Your task to perform on an android device: Open Chrome and go to the settings page Image 0: 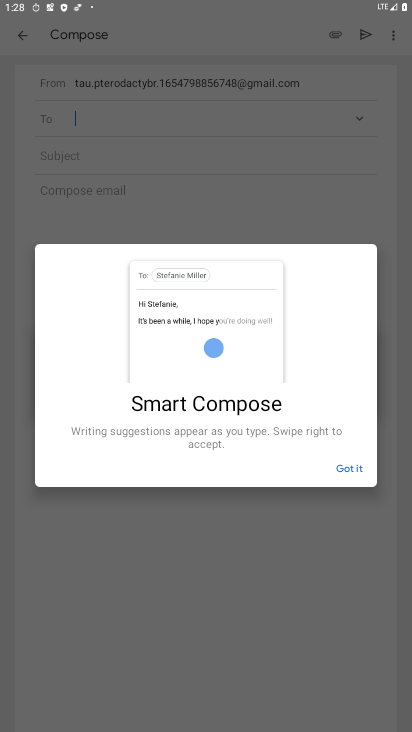
Step 0: press home button
Your task to perform on an android device: Open Chrome and go to the settings page Image 1: 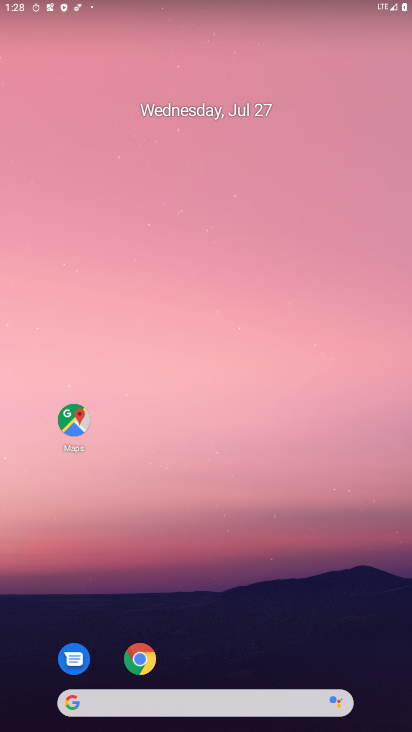
Step 1: drag from (285, 656) to (299, 101)
Your task to perform on an android device: Open Chrome and go to the settings page Image 2: 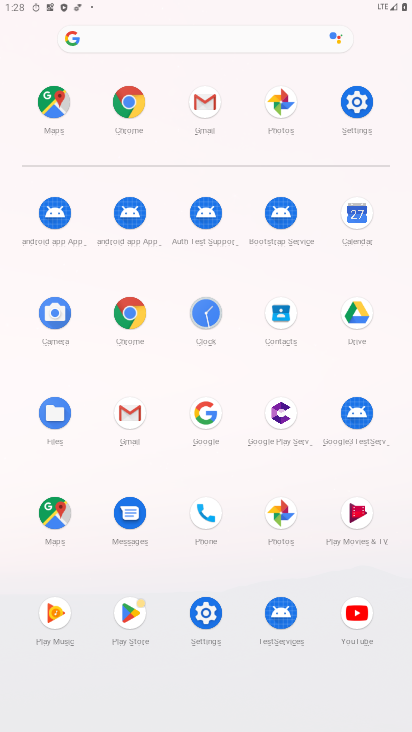
Step 2: click (130, 311)
Your task to perform on an android device: Open Chrome and go to the settings page Image 3: 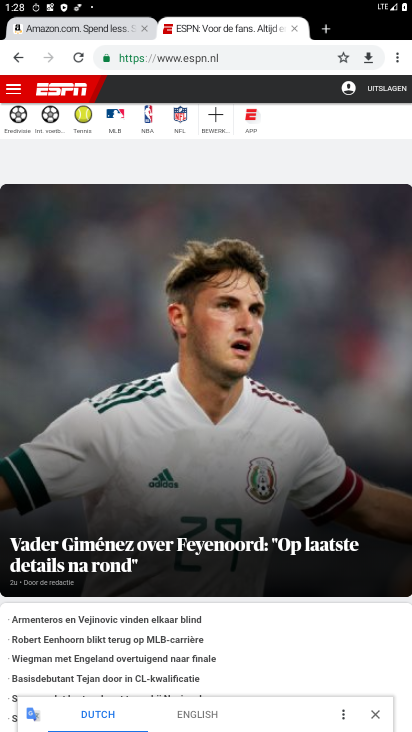
Step 3: task complete